Your task to perform on an android device: Open the map Image 0: 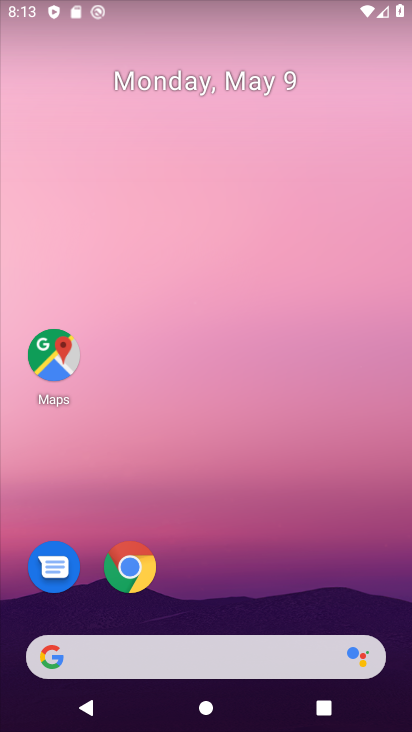
Step 0: drag from (328, 555) to (289, 189)
Your task to perform on an android device: Open the map Image 1: 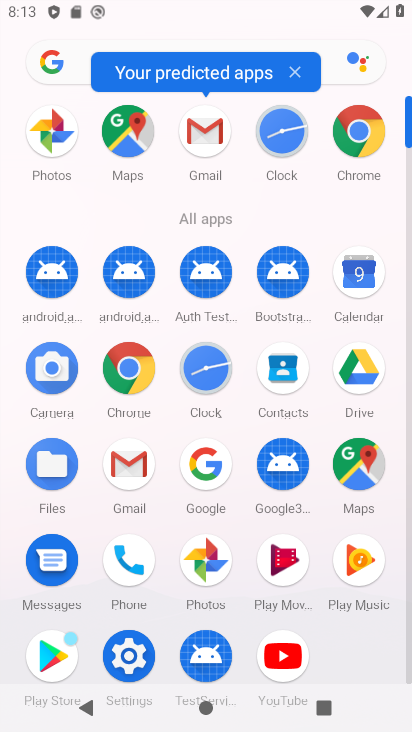
Step 1: click (359, 470)
Your task to perform on an android device: Open the map Image 2: 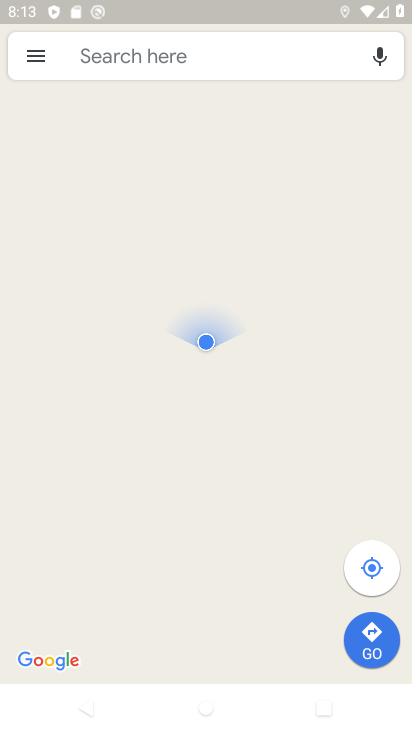
Step 2: task complete